Your task to perform on an android device: move a message to another label in the gmail app Image 0: 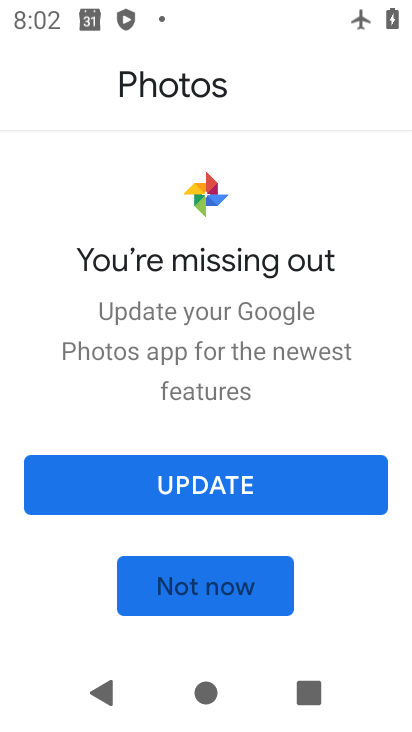
Step 0: press home button
Your task to perform on an android device: move a message to another label in the gmail app Image 1: 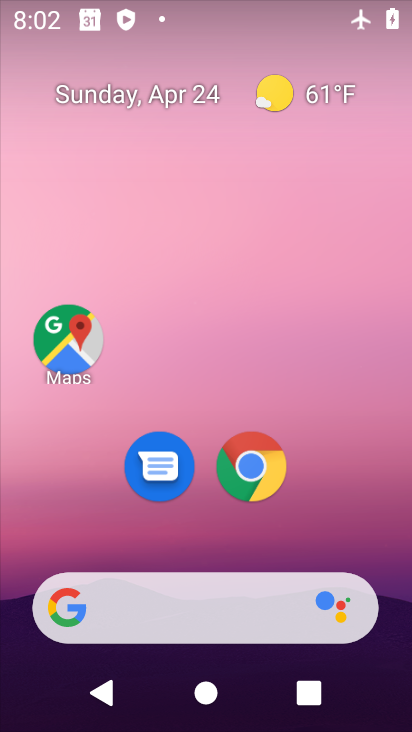
Step 1: drag from (200, 503) to (187, 1)
Your task to perform on an android device: move a message to another label in the gmail app Image 2: 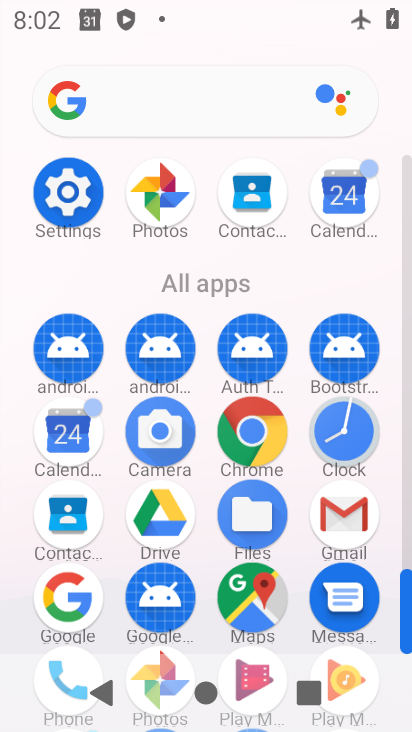
Step 2: click (349, 514)
Your task to perform on an android device: move a message to another label in the gmail app Image 3: 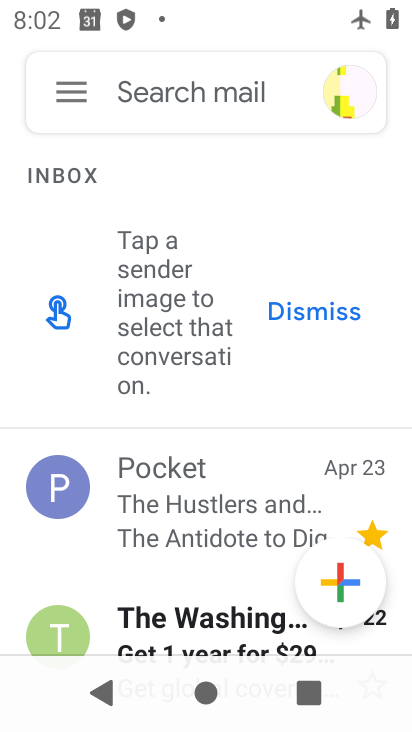
Step 3: click (55, 484)
Your task to perform on an android device: move a message to another label in the gmail app Image 4: 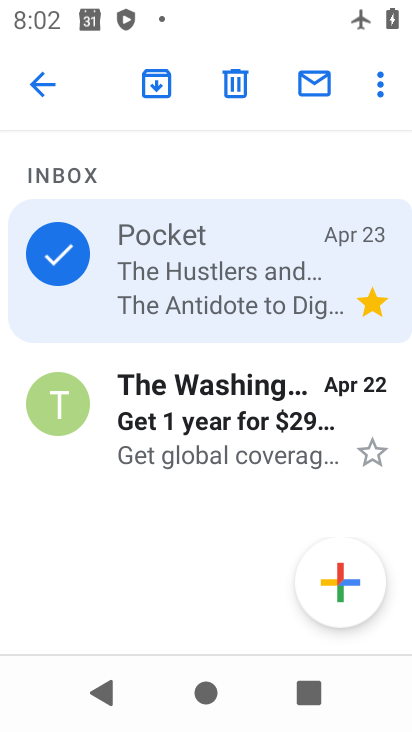
Step 4: click (373, 71)
Your task to perform on an android device: move a message to another label in the gmail app Image 5: 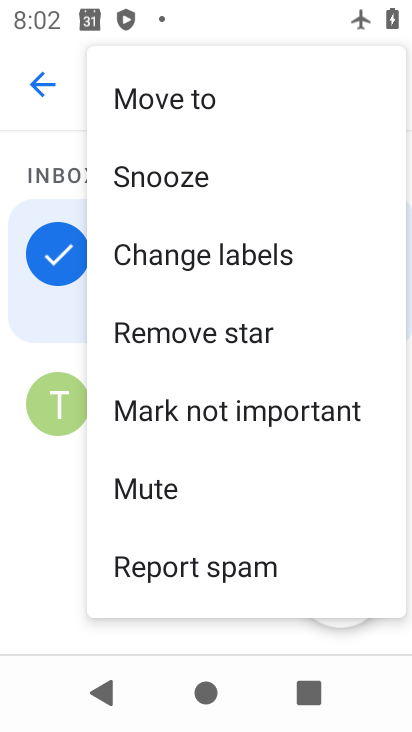
Step 5: click (178, 264)
Your task to perform on an android device: move a message to another label in the gmail app Image 6: 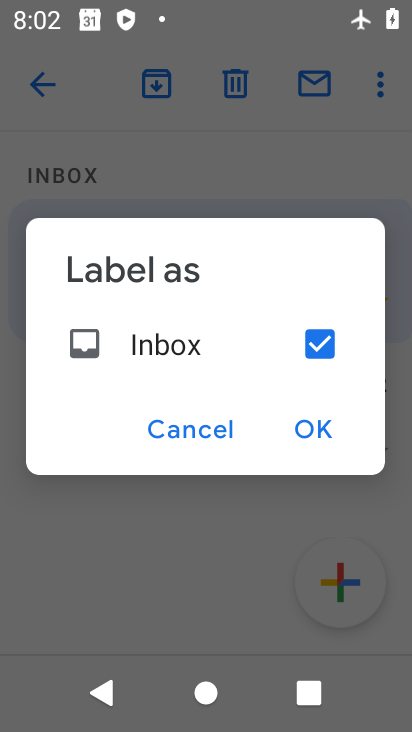
Step 6: click (328, 350)
Your task to perform on an android device: move a message to another label in the gmail app Image 7: 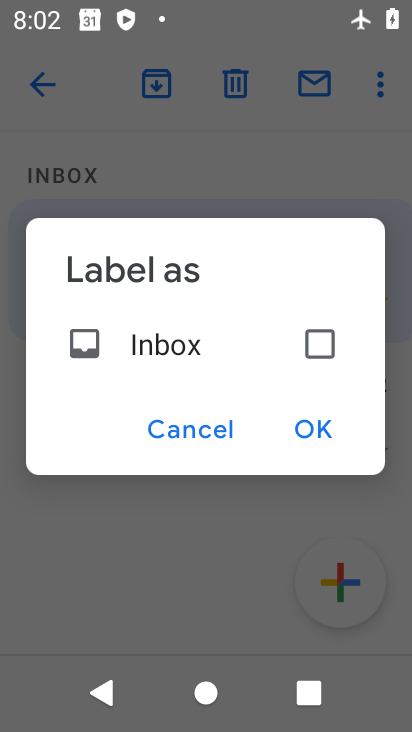
Step 7: click (306, 433)
Your task to perform on an android device: move a message to another label in the gmail app Image 8: 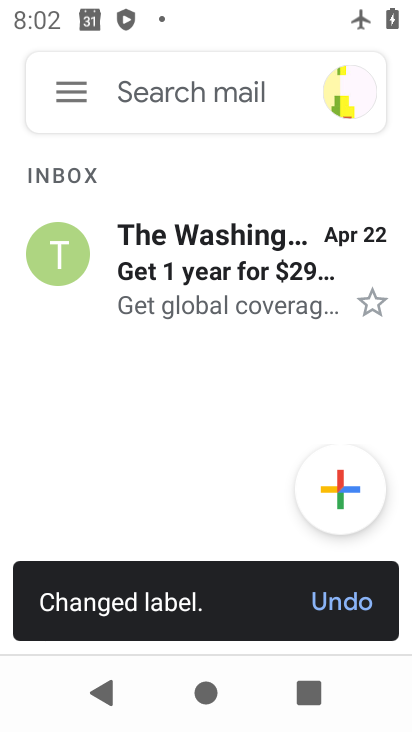
Step 8: task complete